Your task to perform on an android device: turn on notifications settings in the gmail app Image 0: 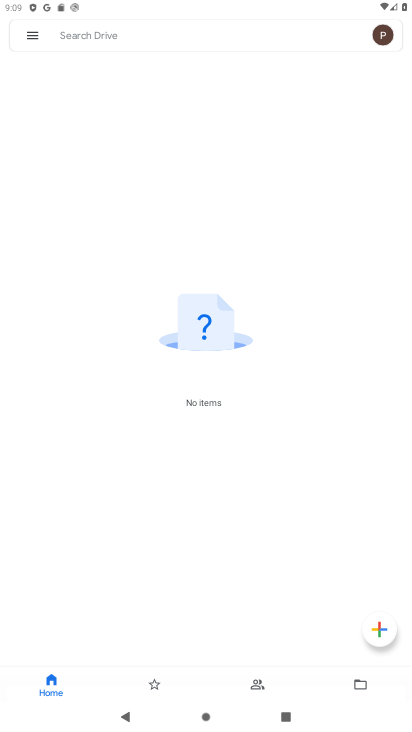
Step 0: press home button
Your task to perform on an android device: turn on notifications settings in the gmail app Image 1: 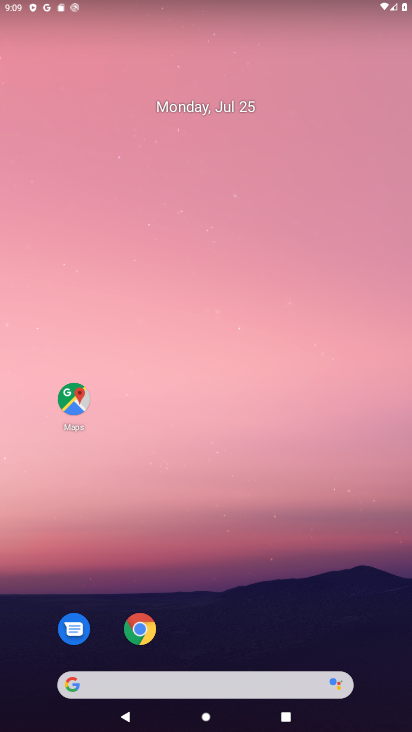
Step 1: drag from (268, 259) to (258, 165)
Your task to perform on an android device: turn on notifications settings in the gmail app Image 2: 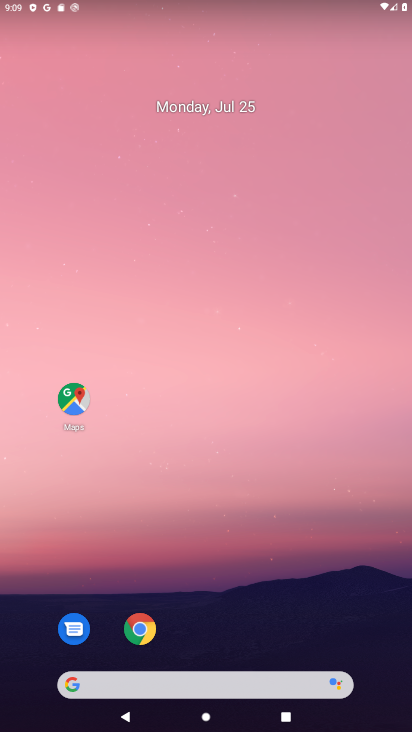
Step 2: drag from (217, 614) to (221, 94)
Your task to perform on an android device: turn on notifications settings in the gmail app Image 3: 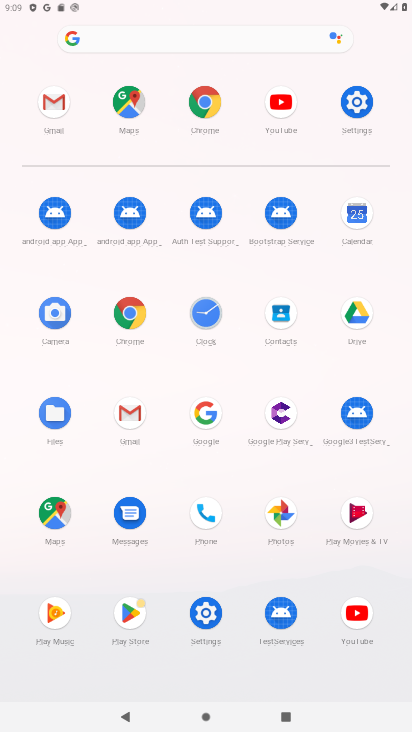
Step 3: click (369, 95)
Your task to perform on an android device: turn on notifications settings in the gmail app Image 4: 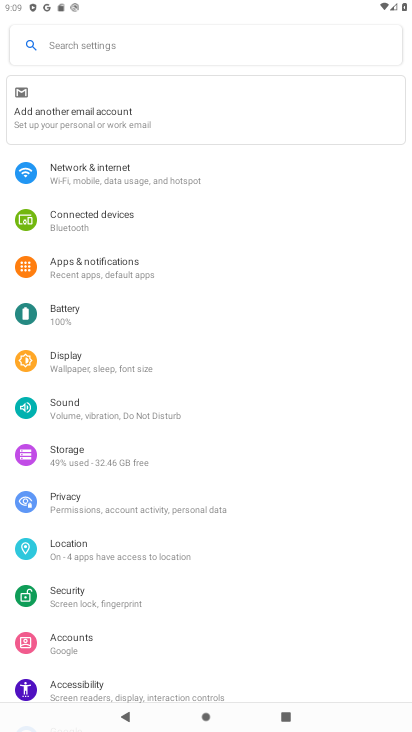
Step 4: click (167, 270)
Your task to perform on an android device: turn on notifications settings in the gmail app Image 5: 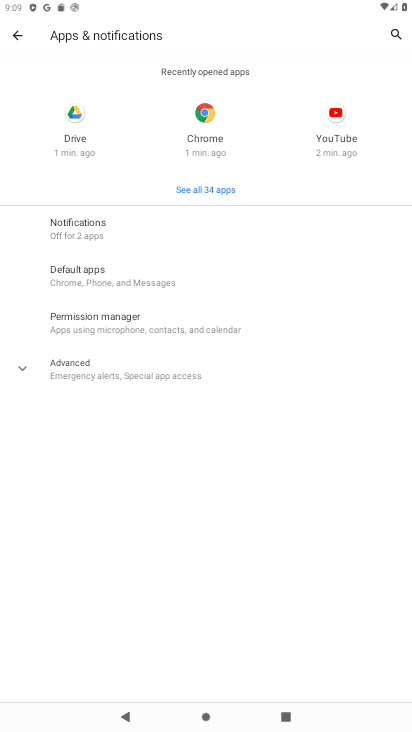
Step 5: click (128, 236)
Your task to perform on an android device: turn on notifications settings in the gmail app Image 6: 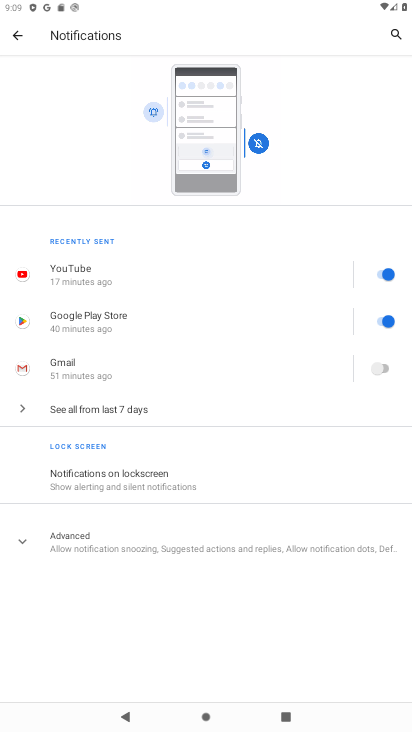
Step 6: click (70, 372)
Your task to perform on an android device: turn on notifications settings in the gmail app Image 7: 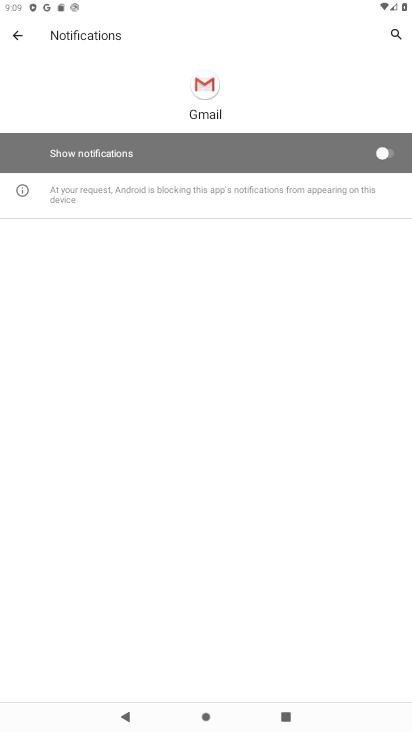
Step 7: click (388, 151)
Your task to perform on an android device: turn on notifications settings in the gmail app Image 8: 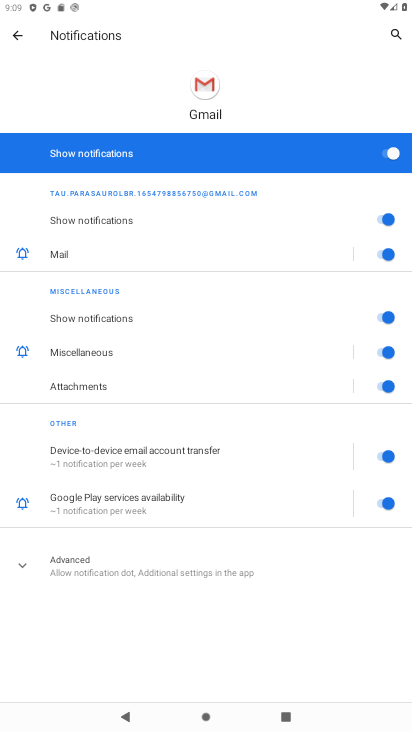
Step 8: task complete